Your task to perform on an android device: Open location settings Image 0: 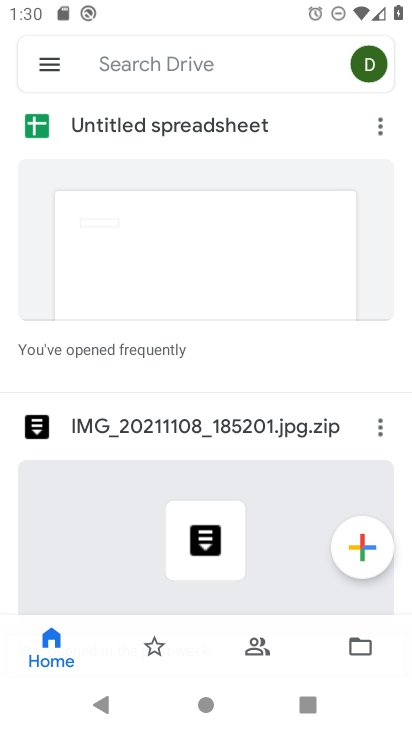
Step 0: press home button
Your task to perform on an android device: Open location settings Image 1: 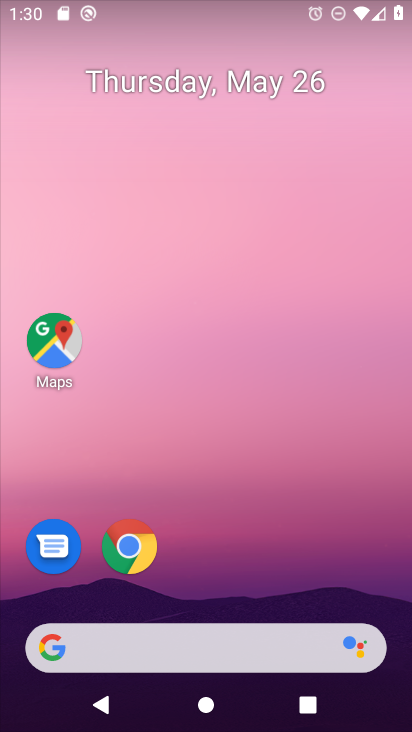
Step 1: drag from (219, 621) to (215, 483)
Your task to perform on an android device: Open location settings Image 2: 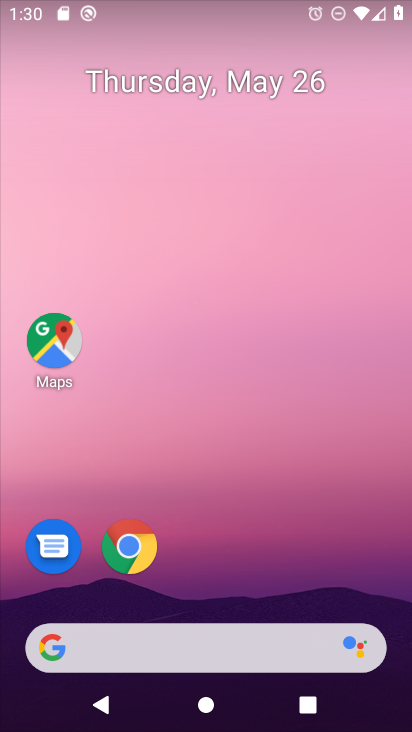
Step 2: drag from (217, 613) to (245, 34)
Your task to perform on an android device: Open location settings Image 3: 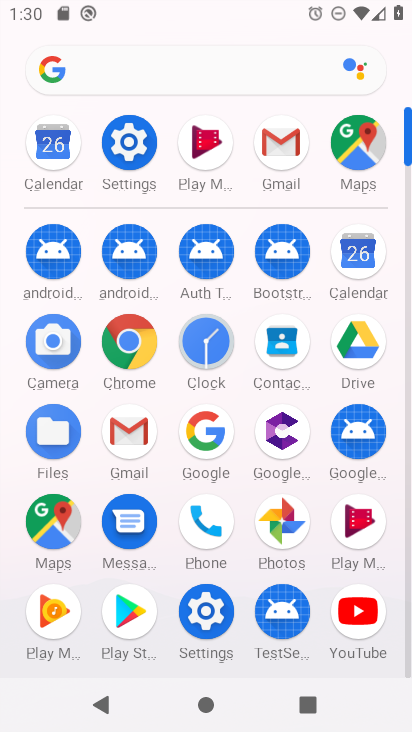
Step 3: click (211, 609)
Your task to perform on an android device: Open location settings Image 4: 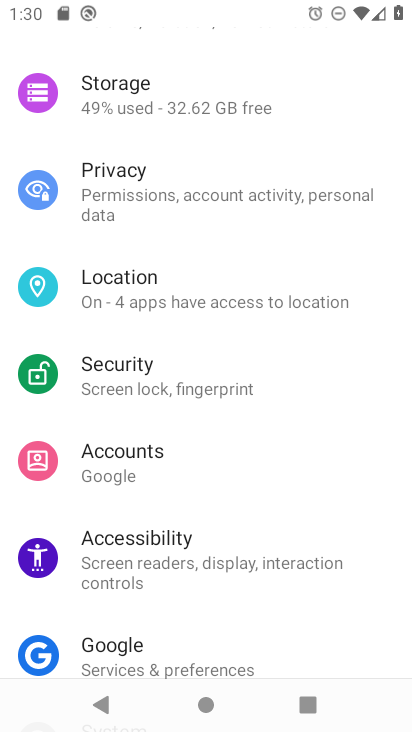
Step 4: drag from (298, 612) to (331, 75)
Your task to perform on an android device: Open location settings Image 5: 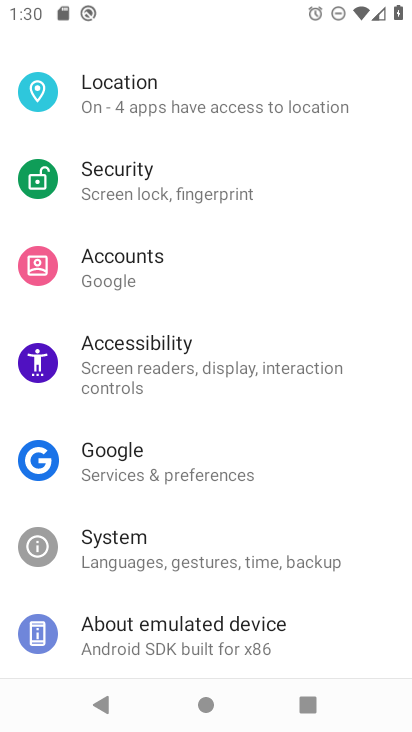
Step 5: drag from (197, 276) to (194, 693)
Your task to perform on an android device: Open location settings Image 6: 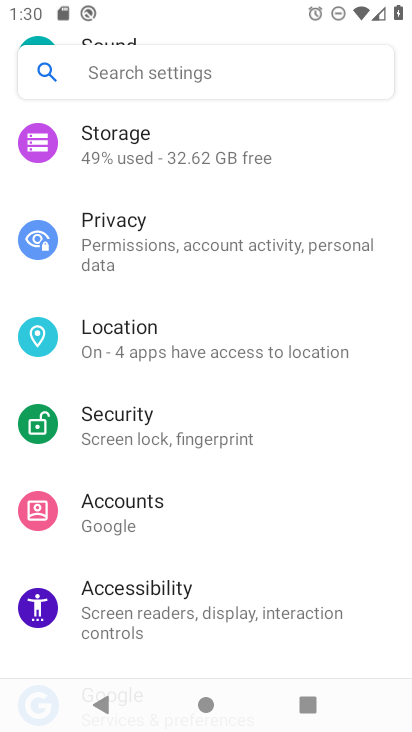
Step 6: click (153, 340)
Your task to perform on an android device: Open location settings Image 7: 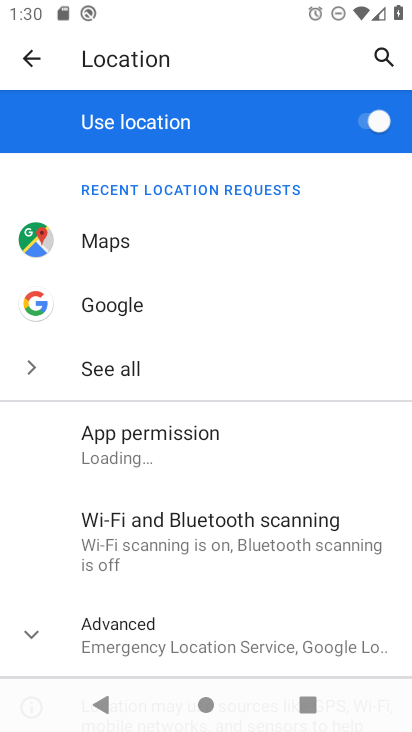
Step 7: click (138, 621)
Your task to perform on an android device: Open location settings Image 8: 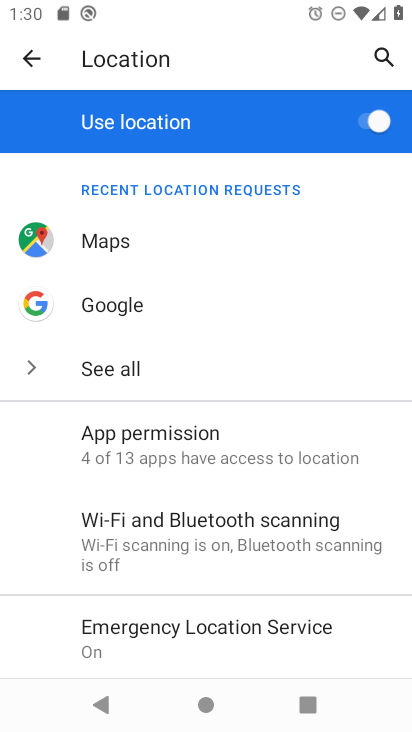
Step 8: task complete